Your task to perform on an android device: Go to Google Image 0: 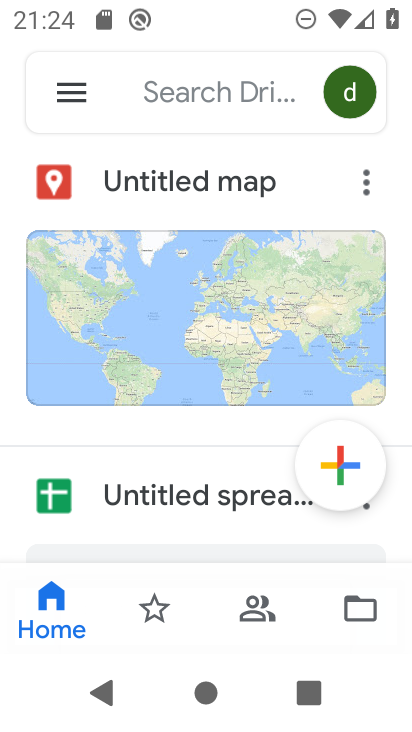
Step 0: press home button
Your task to perform on an android device: Go to Google Image 1: 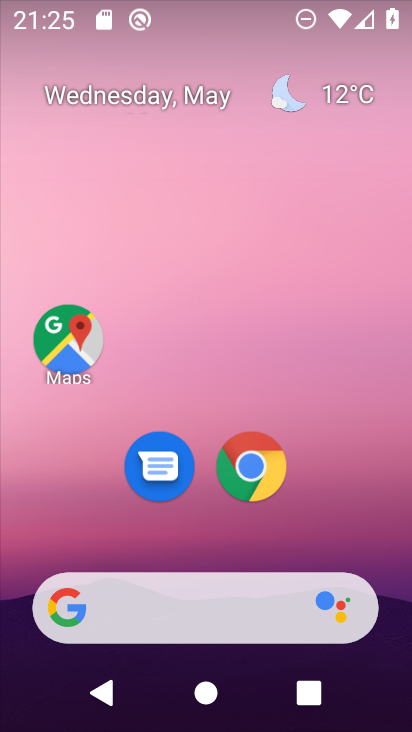
Step 1: drag from (207, 529) to (222, 104)
Your task to perform on an android device: Go to Google Image 2: 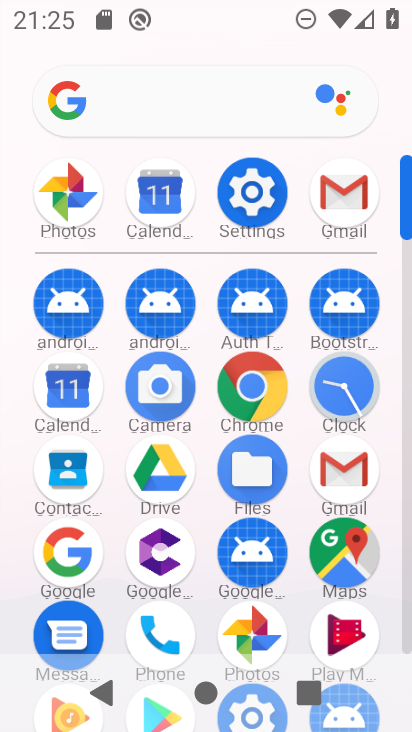
Step 2: click (63, 541)
Your task to perform on an android device: Go to Google Image 3: 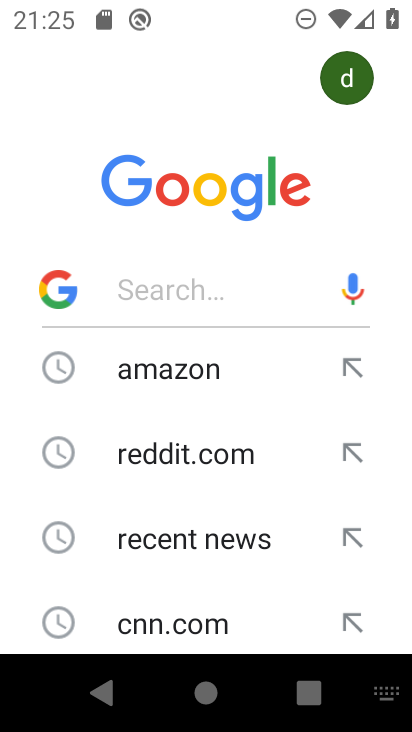
Step 3: press back button
Your task to perform on an android device: Go to Google Image 4: 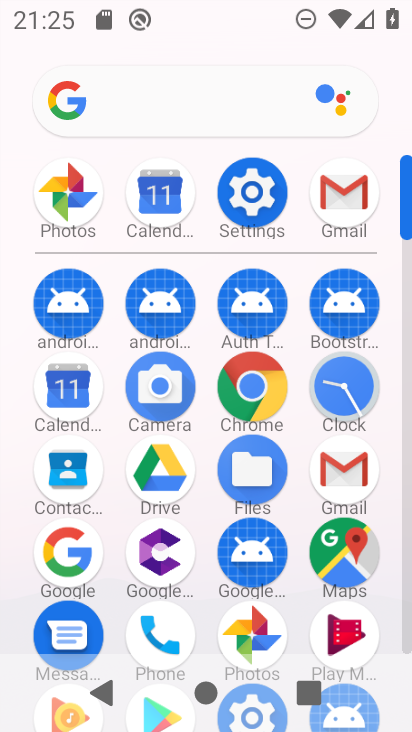
Step 4: click (65, 552)
Your task to perform on an android device: Go to Google Image 5: 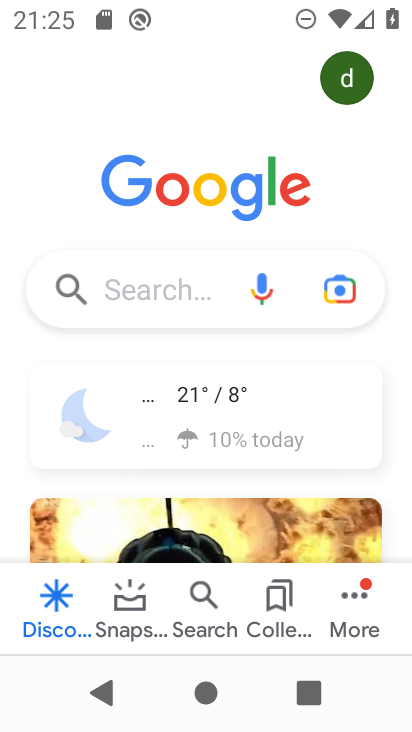
Step 5: task complete